Your task to perform on an android device: Open location settings Image 0: 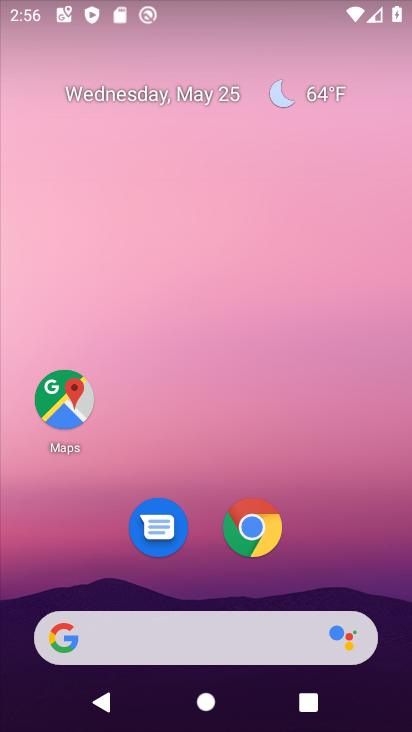
Step 0: drag from (197, 448) to (247, 66)
Your task to perform on an android device: Open location settings Image 1: 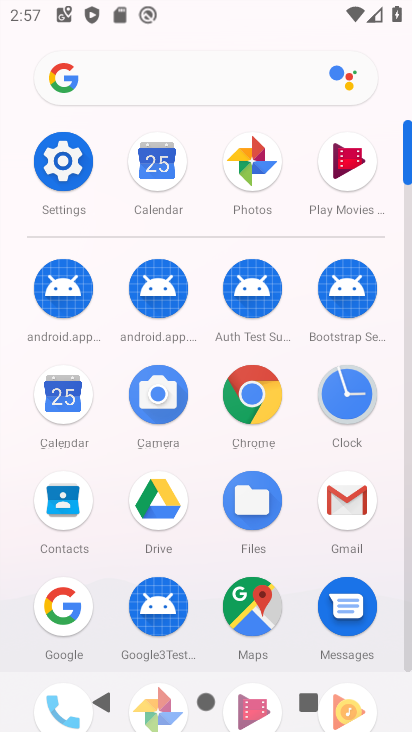
Step 1: click (63, 164)
Your task to perform on an android device: Open location settings Image 2: 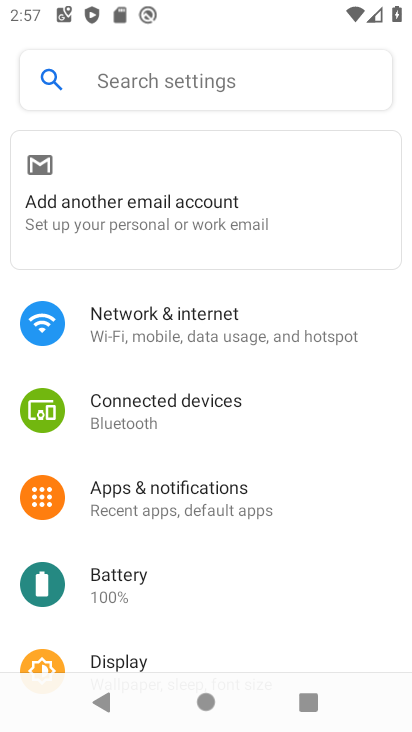
Step 2: drag from (201, 640) to (322, 81)
Your task to perform on an android device: Open location settings Image 3: 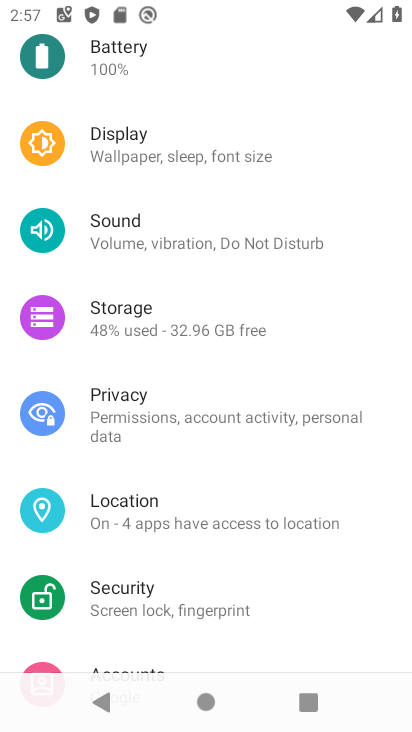
Step 3: click (137, 494)
Your task to perform on an android device: Open location settings Image 4: 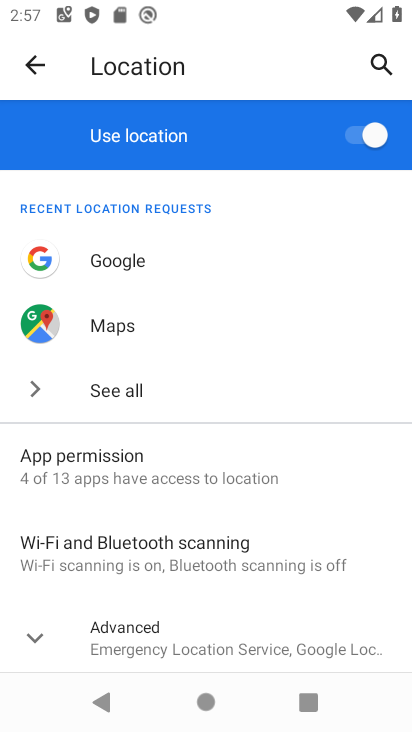
Step 4: task complete